Your task to perform on an android device: open app "Google Find My Device" Image 0: 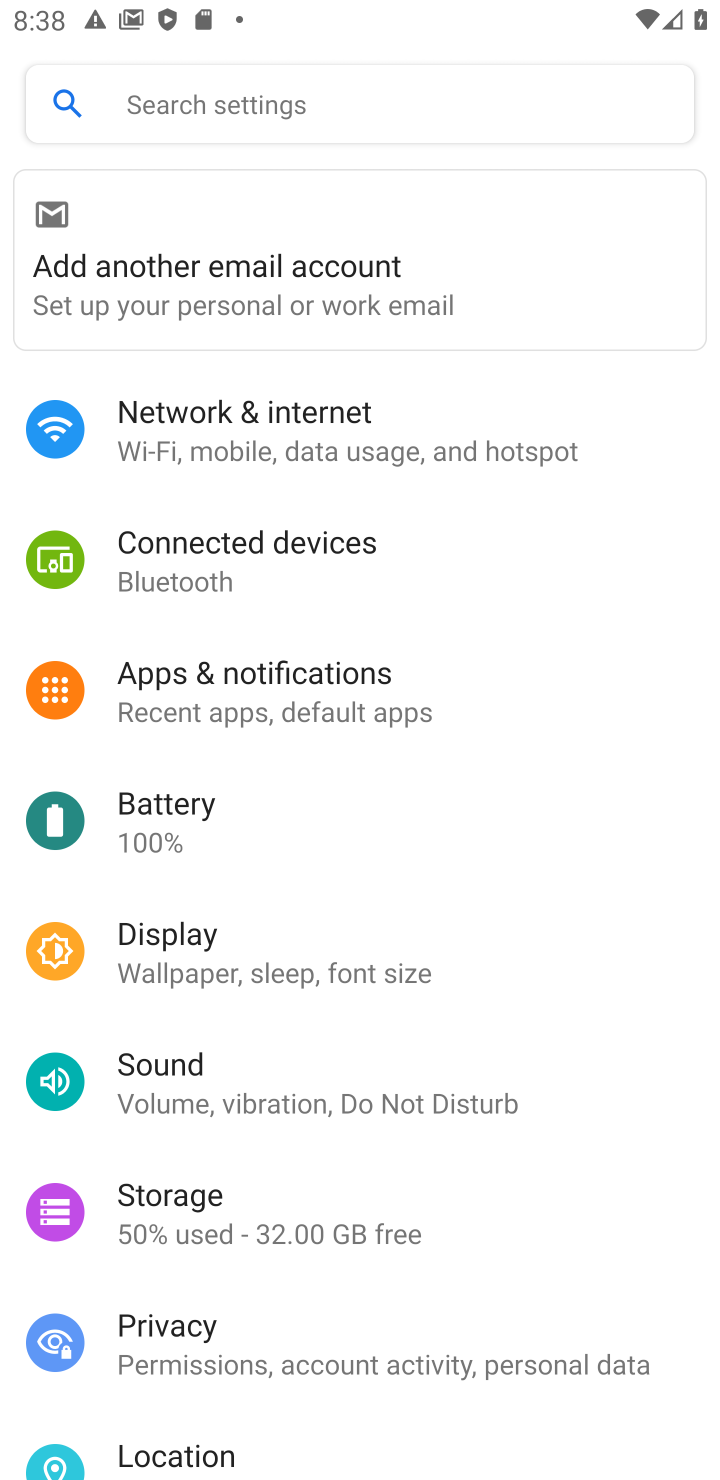
Step 0: press home button
Your task to perform on an android device: open app "Google Find My Device" Image 1: 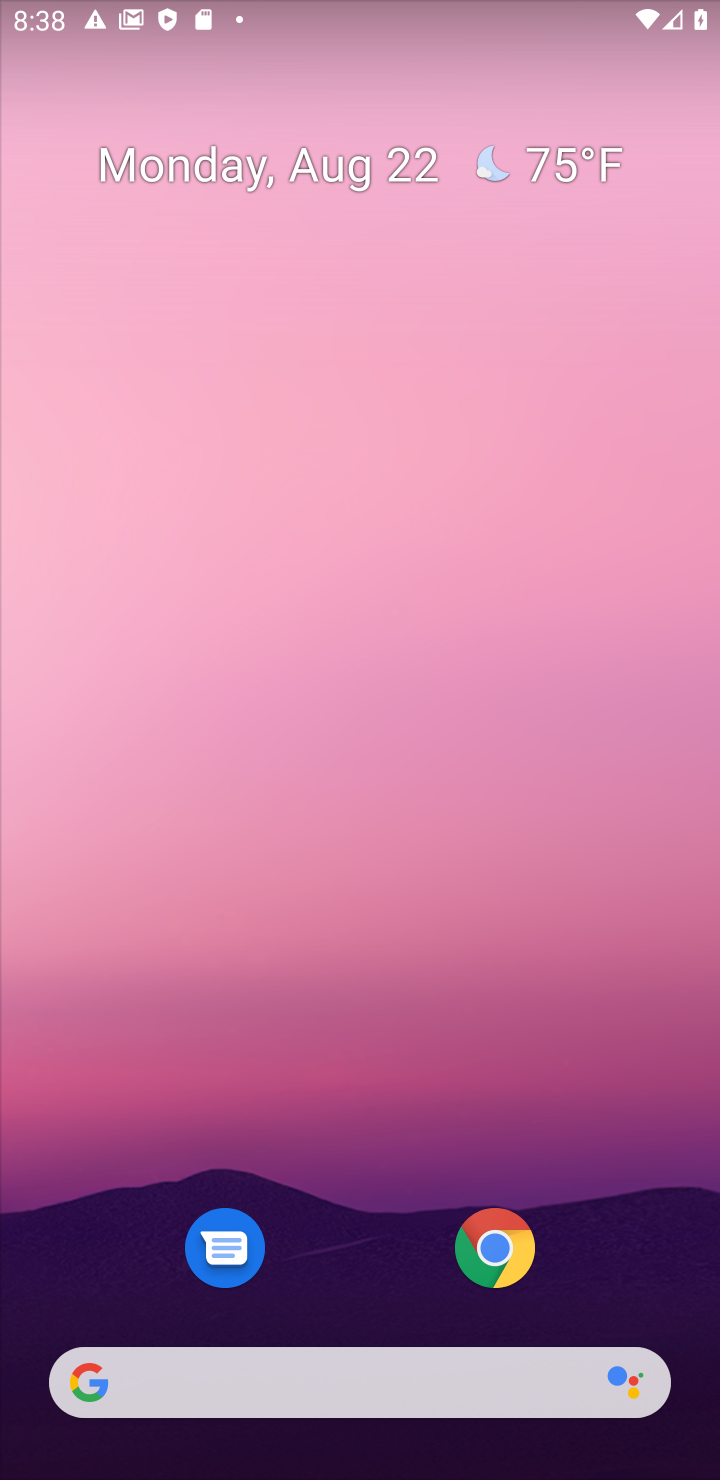
Step 1: drag from (351, 1151) to (351, 84)
Your task to perform on an android device: open app "Google Find My Device" Image 2: 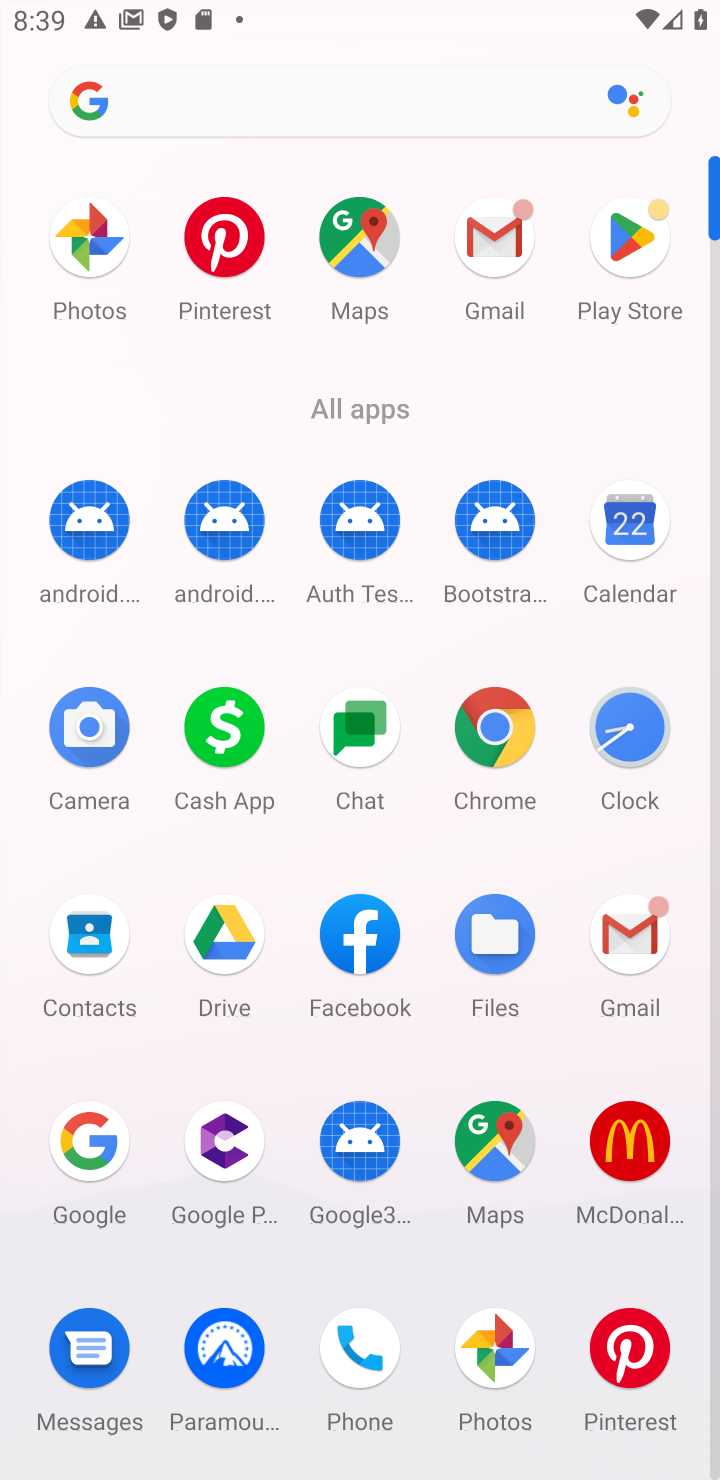
Step 2: click (626, 233)
Your task to perform on an android device: open app "Google Find My Device" Image 3: 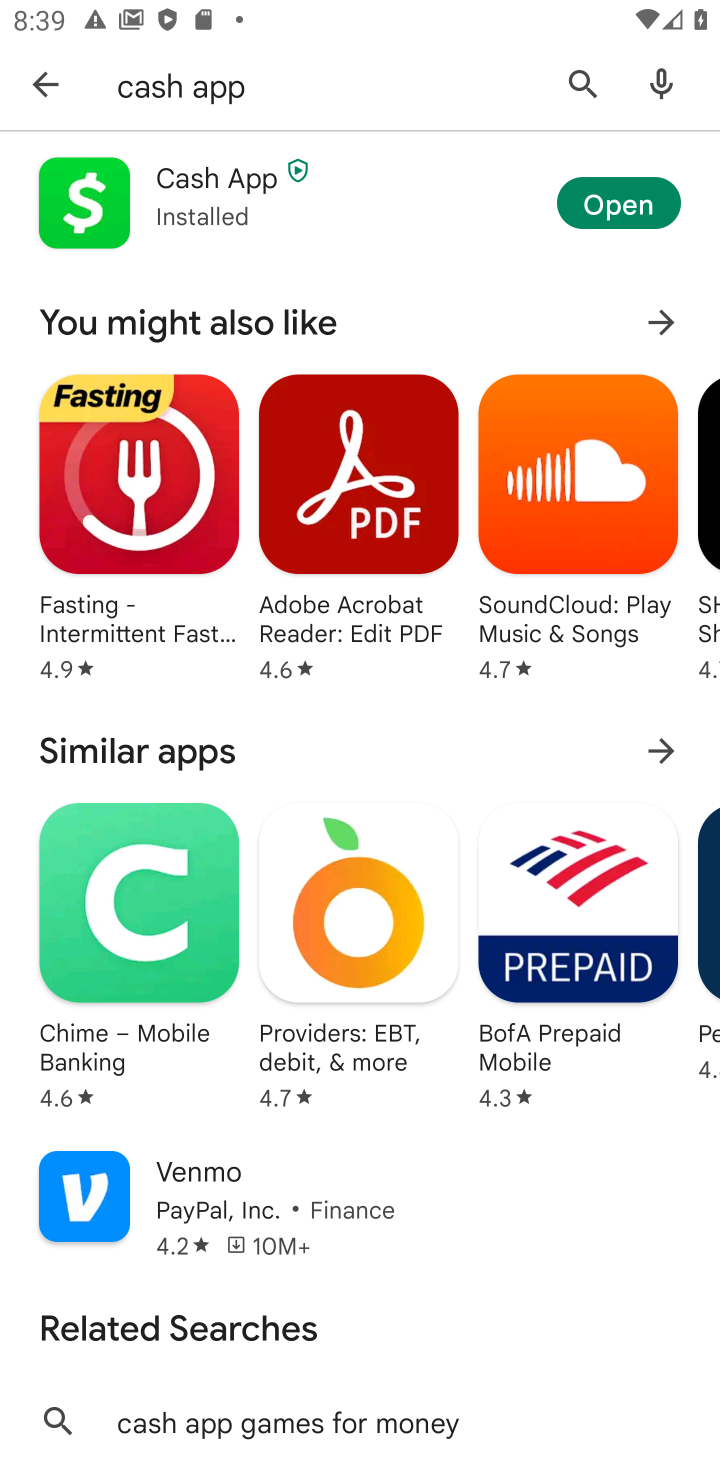
Step 3: click (580, 76)
Your task to perform on an android device: open app "Google Find My Device" Image 4: 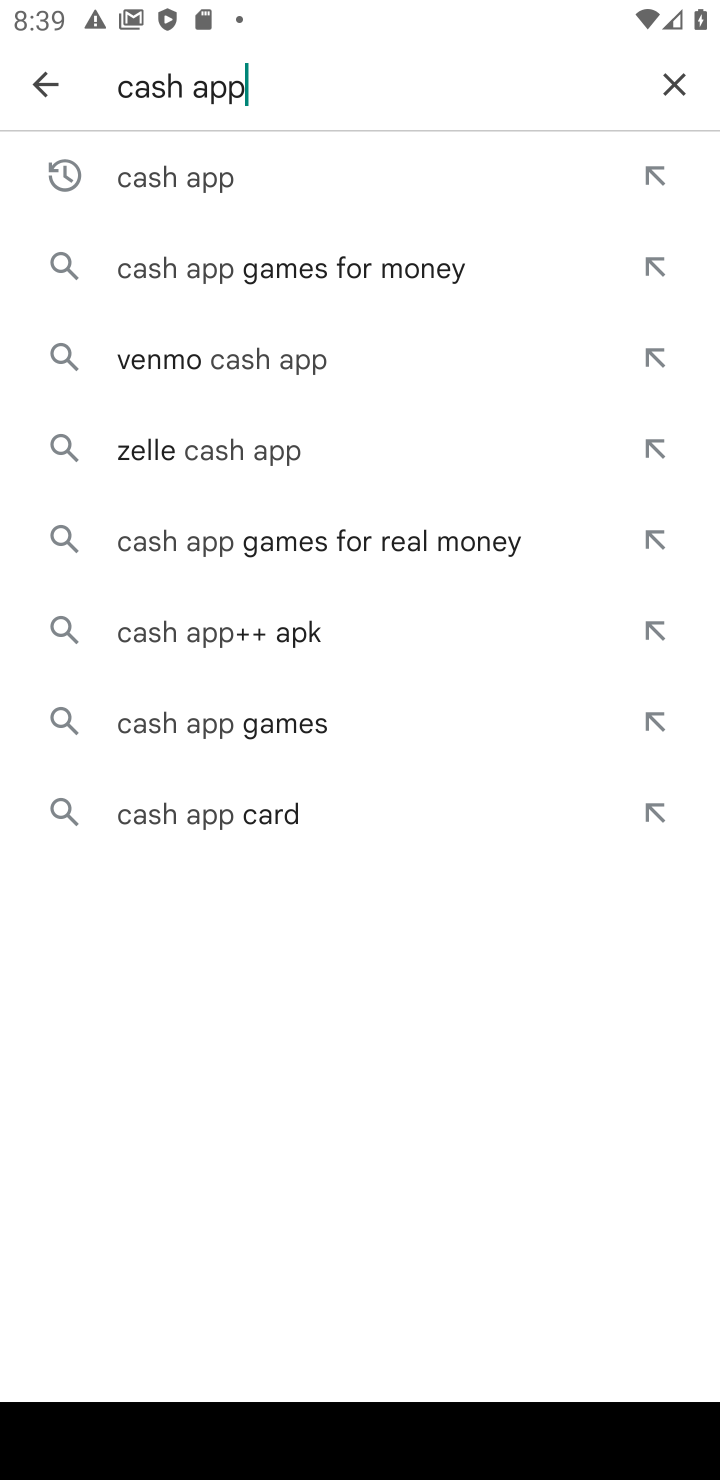
Step 4: click (673, 73)
Your task to perform on an android device: open app "Google Find My Device" Image 5: 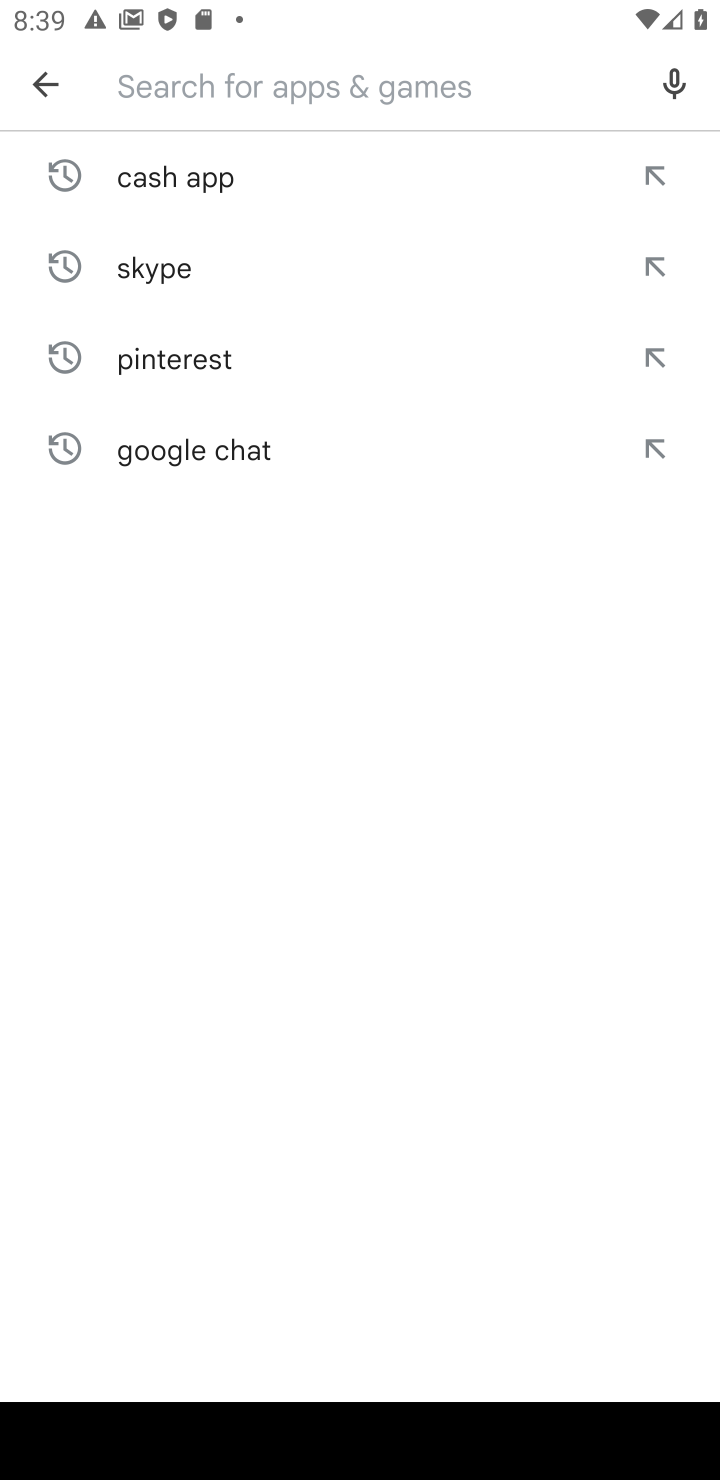
Step 5: type "Google Find Device"
Your task to perform on an android device: open app "Google Find My Device" Image 6: 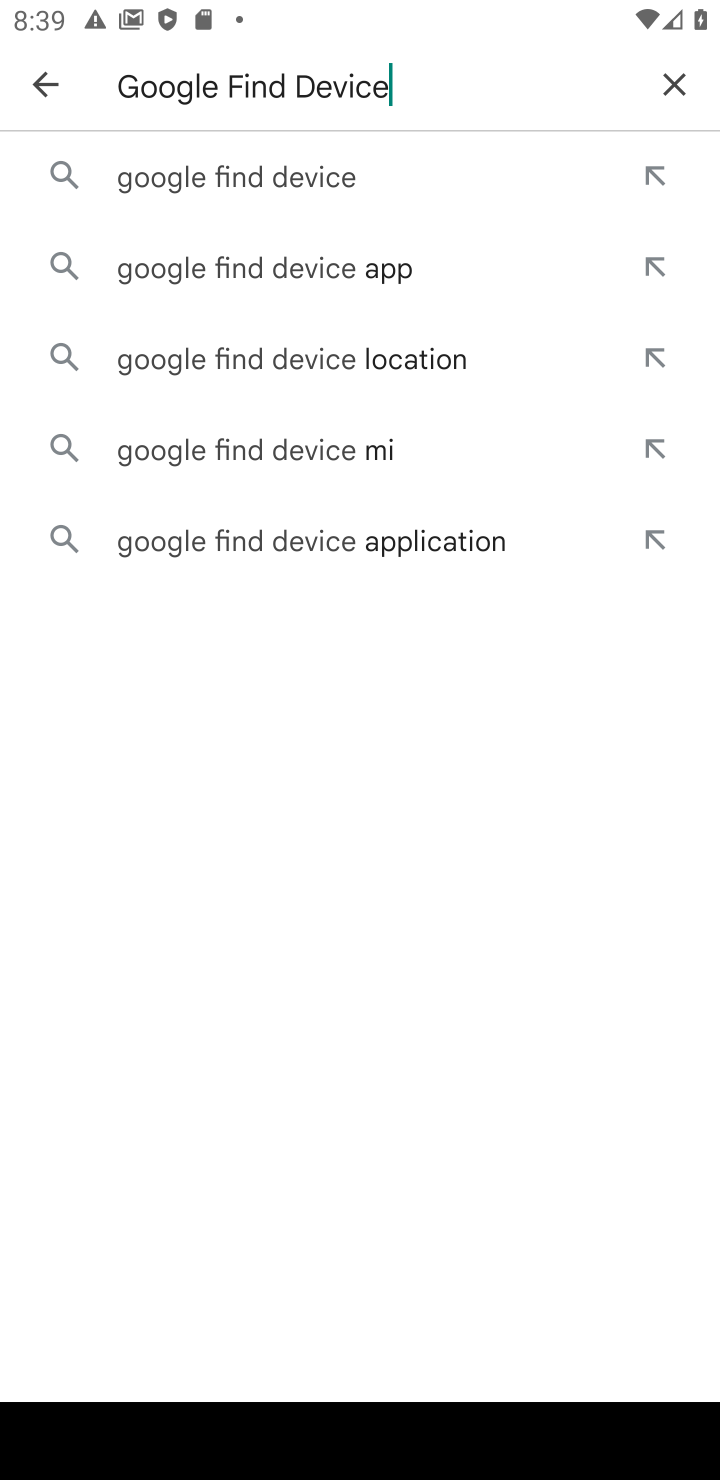
Step 6: click (301, 179)
Your task to perform on an android device: open app "Google Find My Device" Image 7: 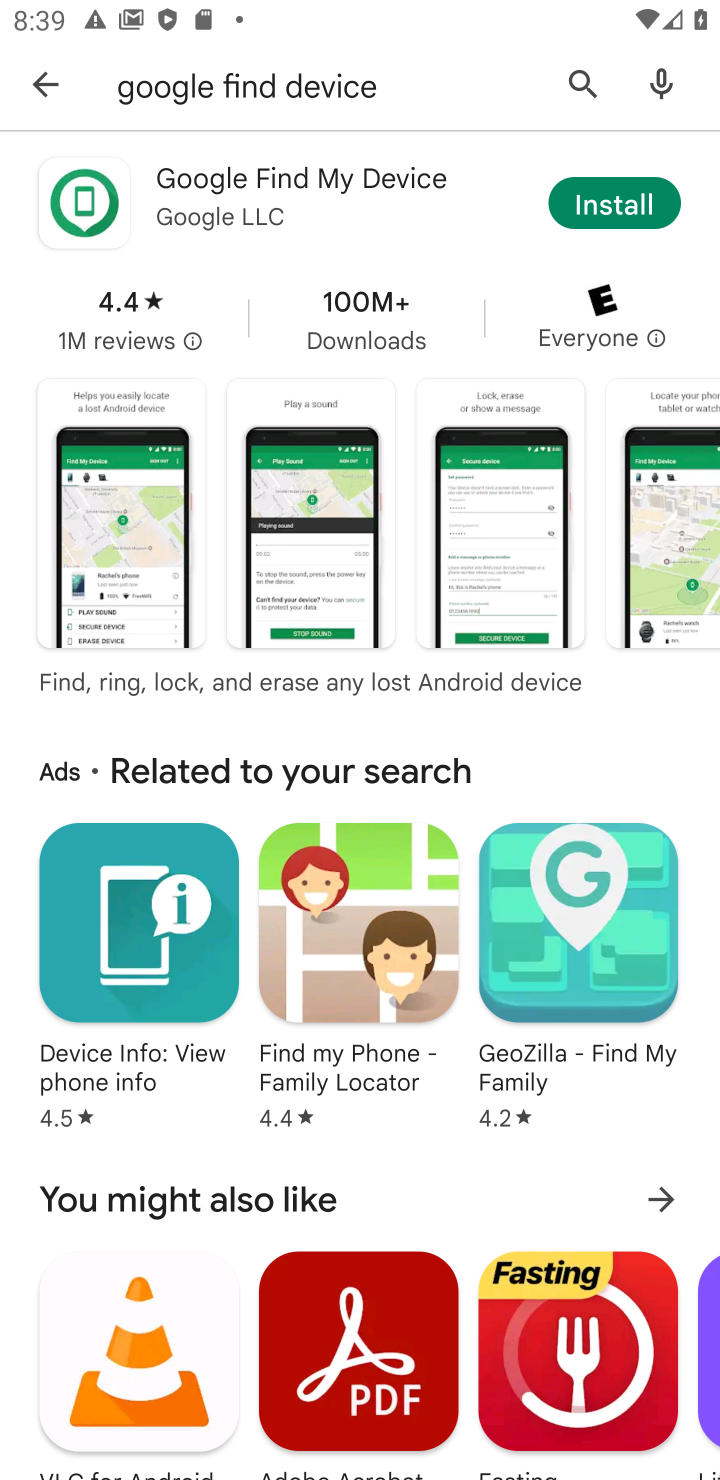
Step 7: task complete